Your task to perform on an android device: Add jbl charge 4 to the cart on newegg Image 0: 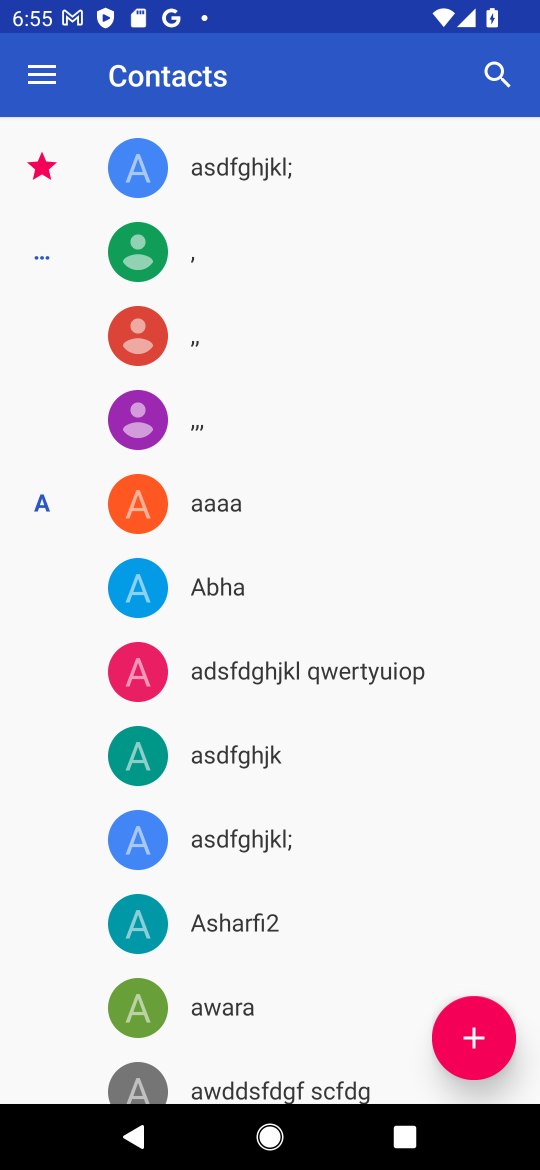
Step 0: press home button
Your task to perform on an android device: Add jbl charge 4 to the cart on newegg Image 1: 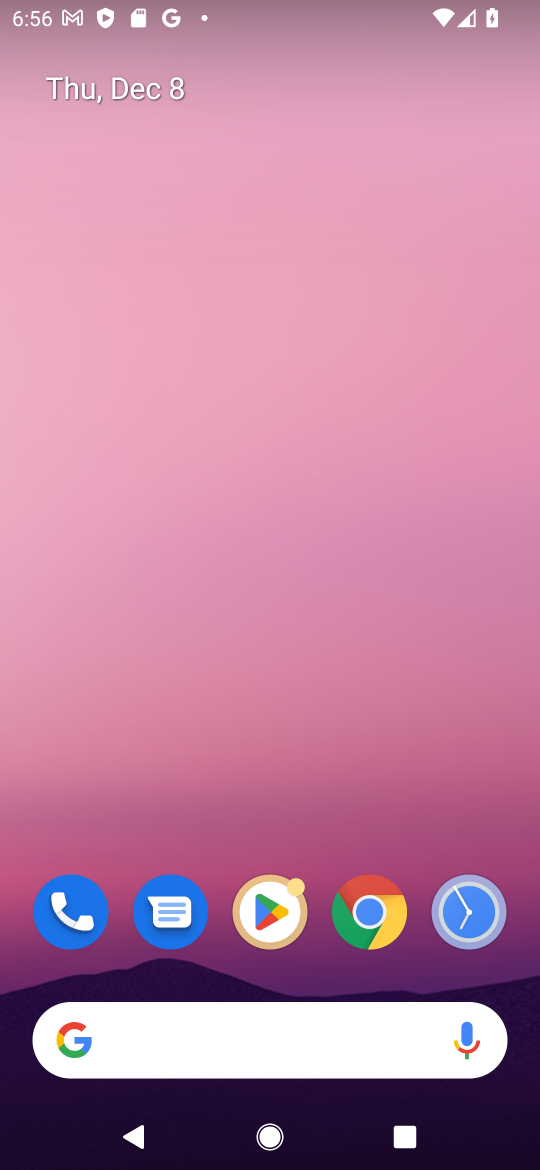
Step 1: drag from (294, 783) to (436, 228)
Your task to perform on an android device: Add jbl charge 4 to the cart on newegg Image 2: 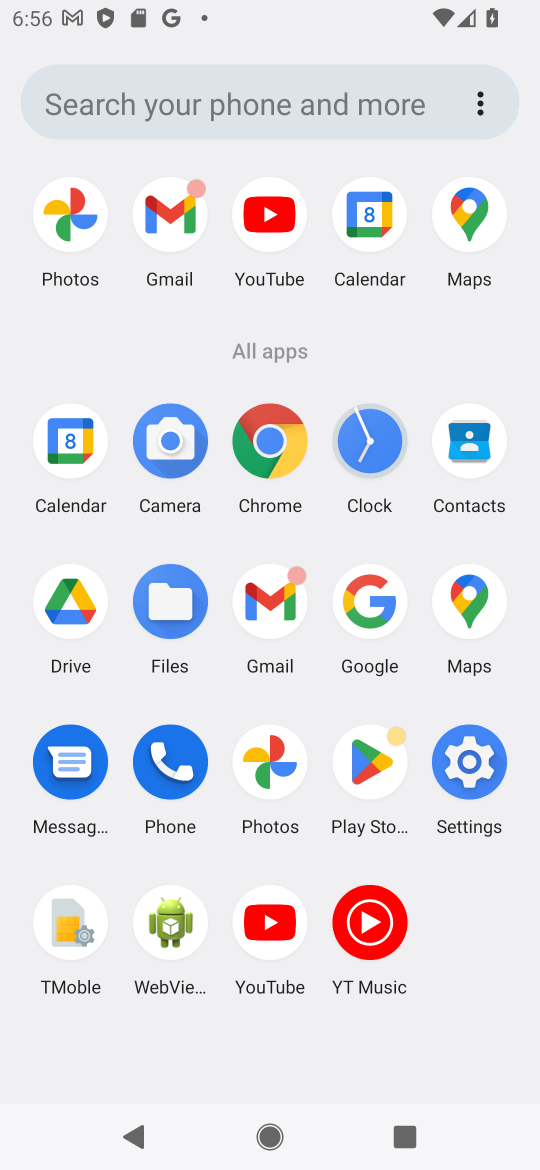
Step 2: click (369, 609)
Your task to perform on an android device: Add jbl charge 4 to the cart on newegg Image 3: 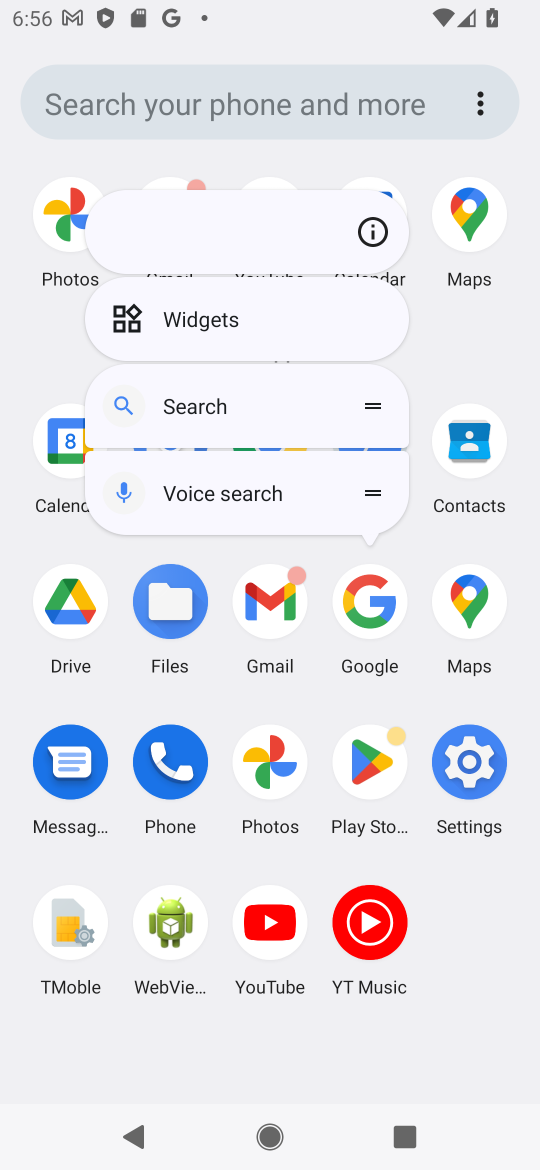
Step 3: click (373, 599)
Your task to perform on an android device: Add jbl charge 4 to the cart on newegg Image 4: 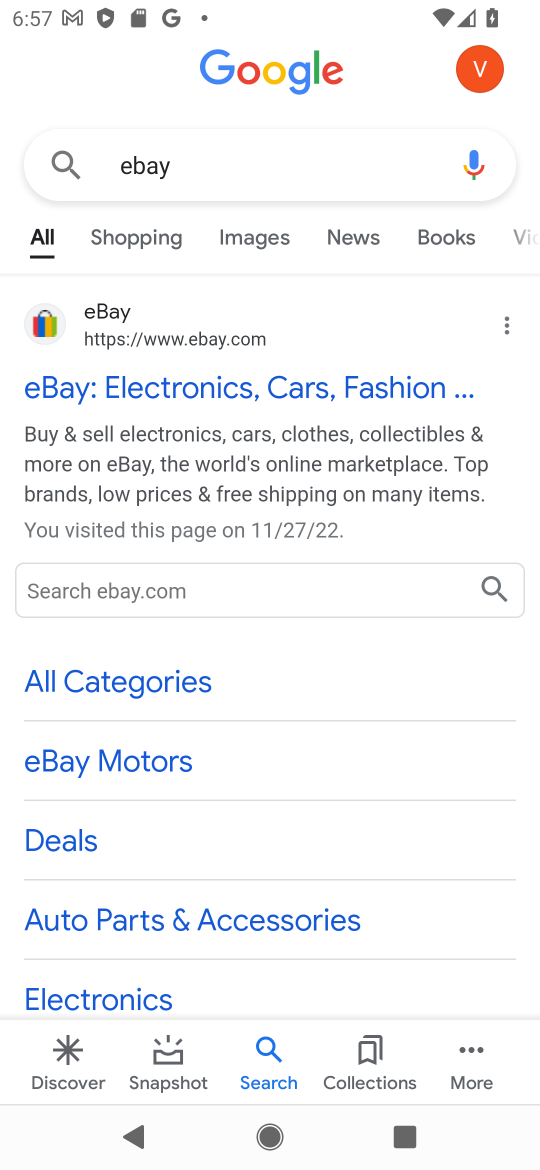
Step 4: click (164, 162)
Your task to perform on an android device: Add jbl charge 4 to the cart on newegg Image 5: 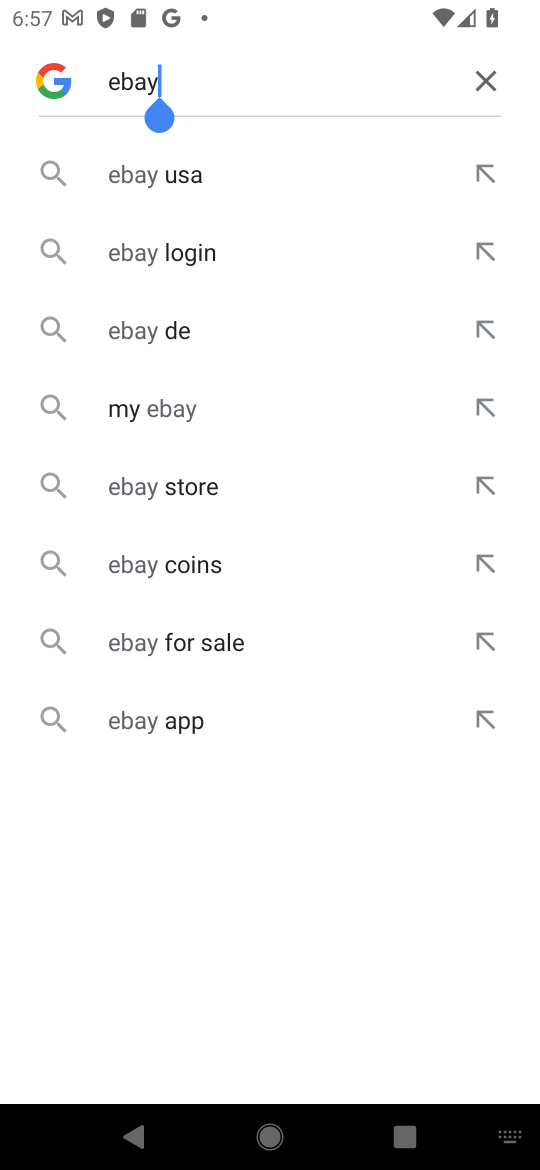
Step 5: click (487, 89)
Your task to perform on an android device: Add jbl charge 4 to the cart on newegg Image 6: 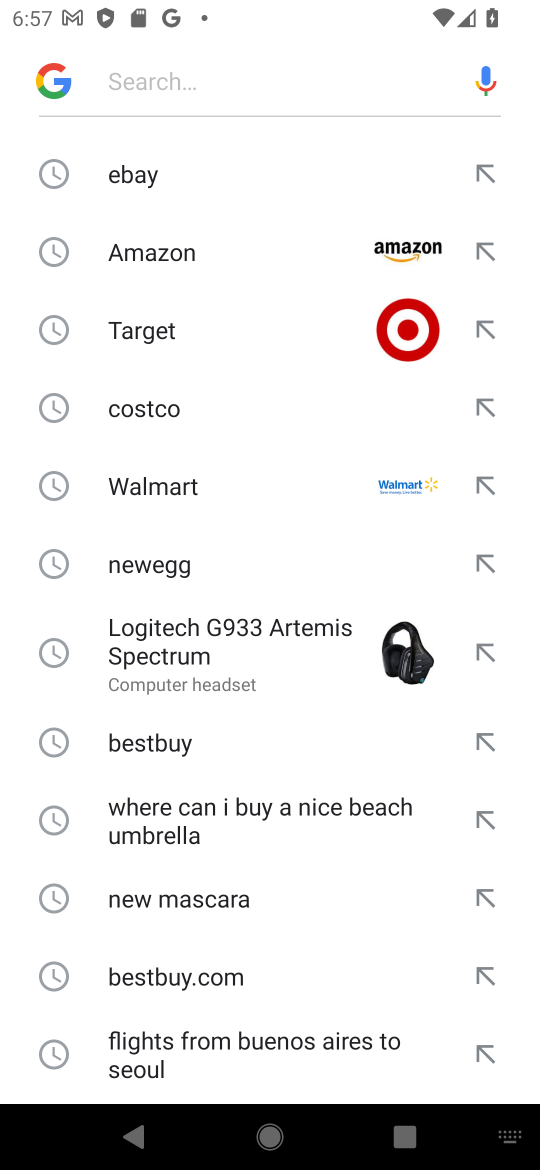
Step 6: click (150, 568)
Your task to perform on an android device: Add jbl charge 4 to the cart on newegg Image 7: 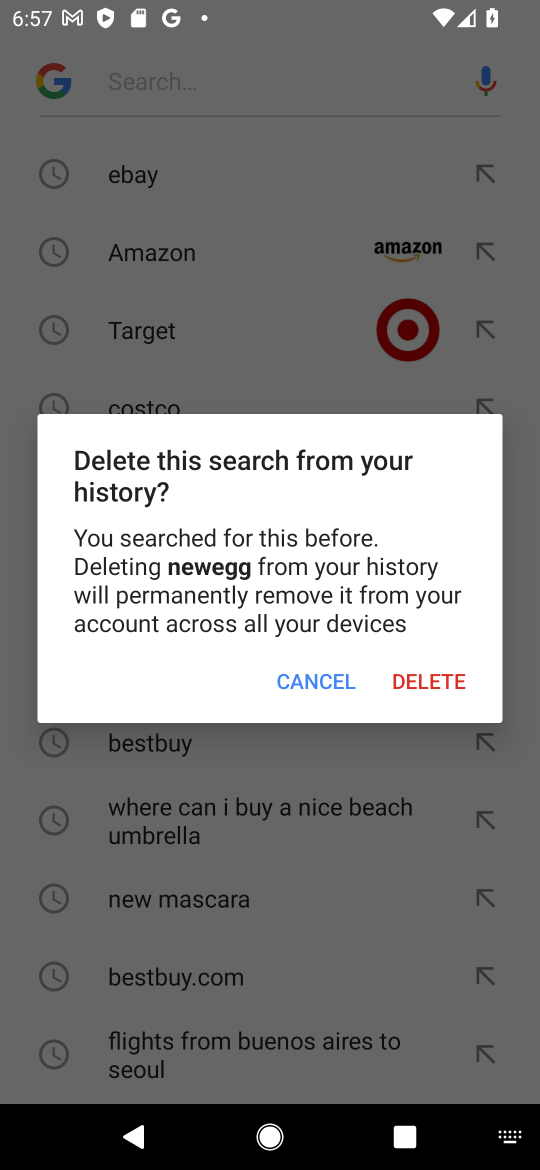
Step 7: click (296, 674)
Your task to perform on an android device: Add jbl charge 4 to the cart on newegg Image 8: 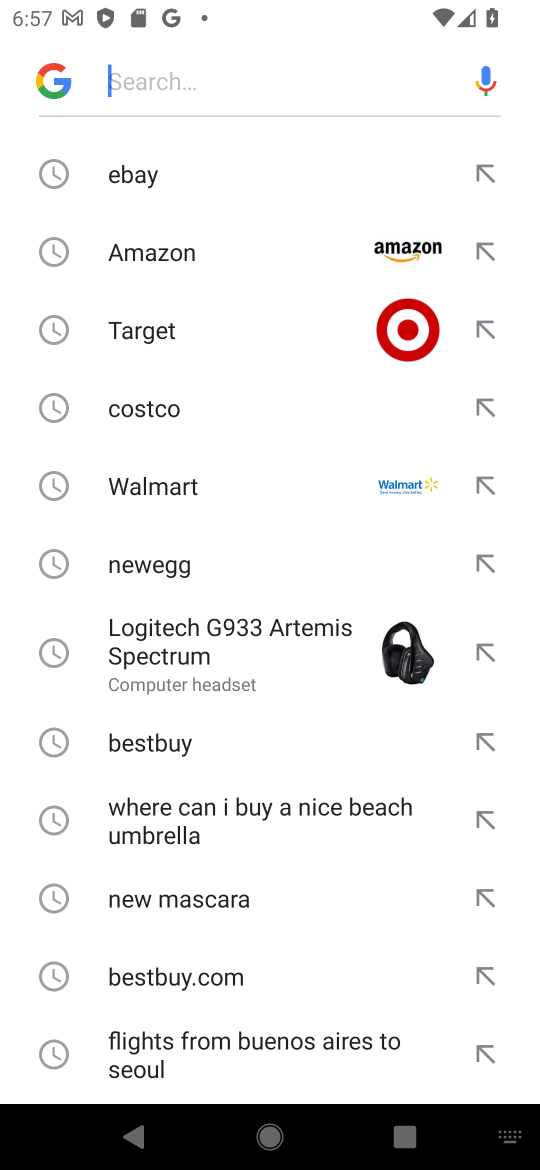
Step 8: click (494, 557)
Your task to perform on an android device: Add jbl charge 4 to the cart on newegg Image 9: 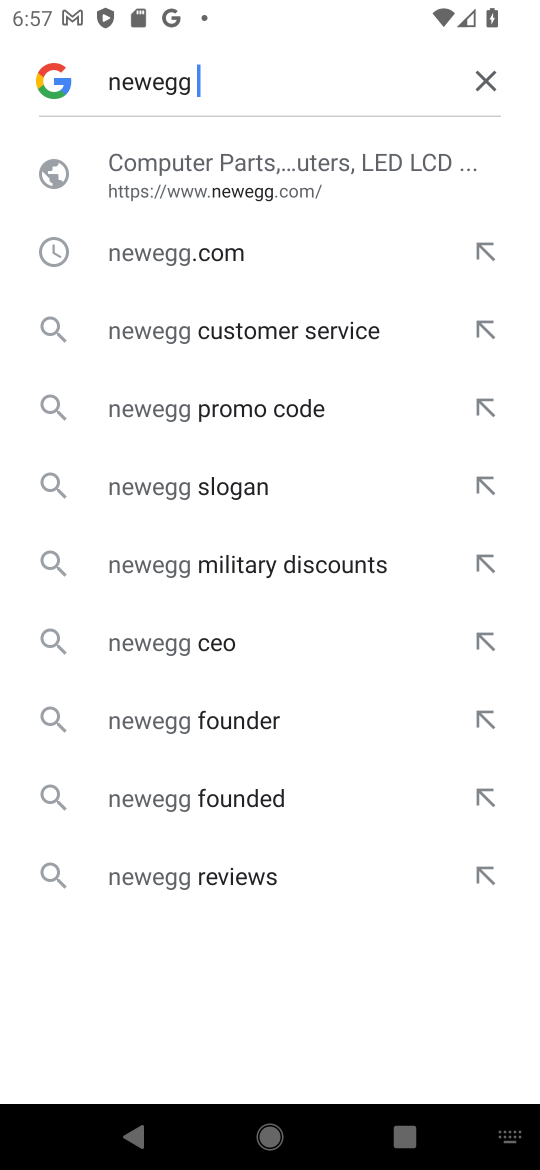
Step 9: click (231, 183)
Your task to perform on an android device: Add jbl charge 4 to the cart on newegg Image 10: 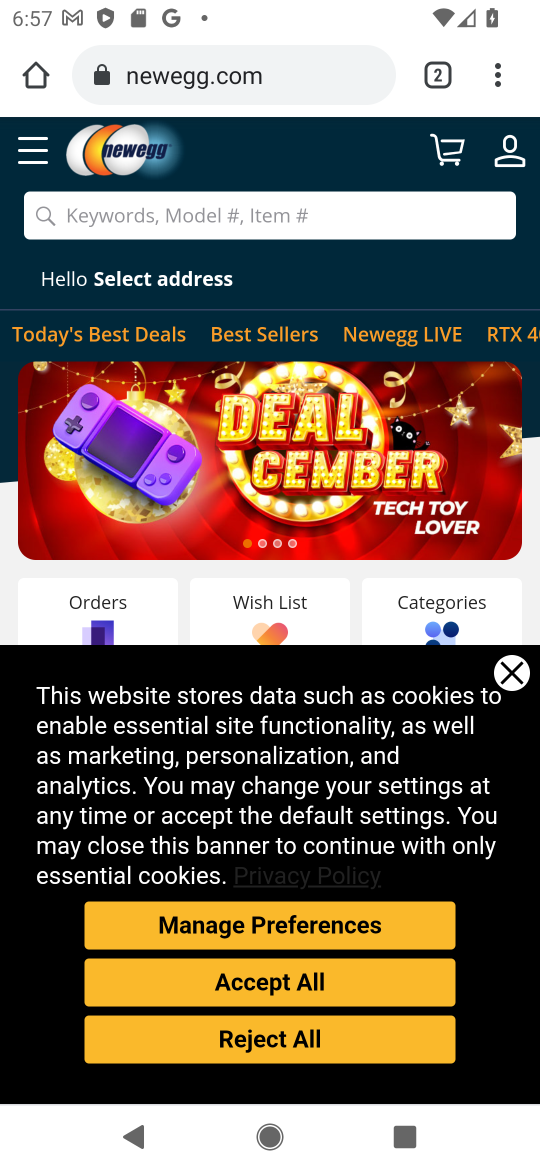
Step 10: click (228, 203)
Your task to perform on an android device: Add jbl charge 4 to the cart on newegg Image 11: 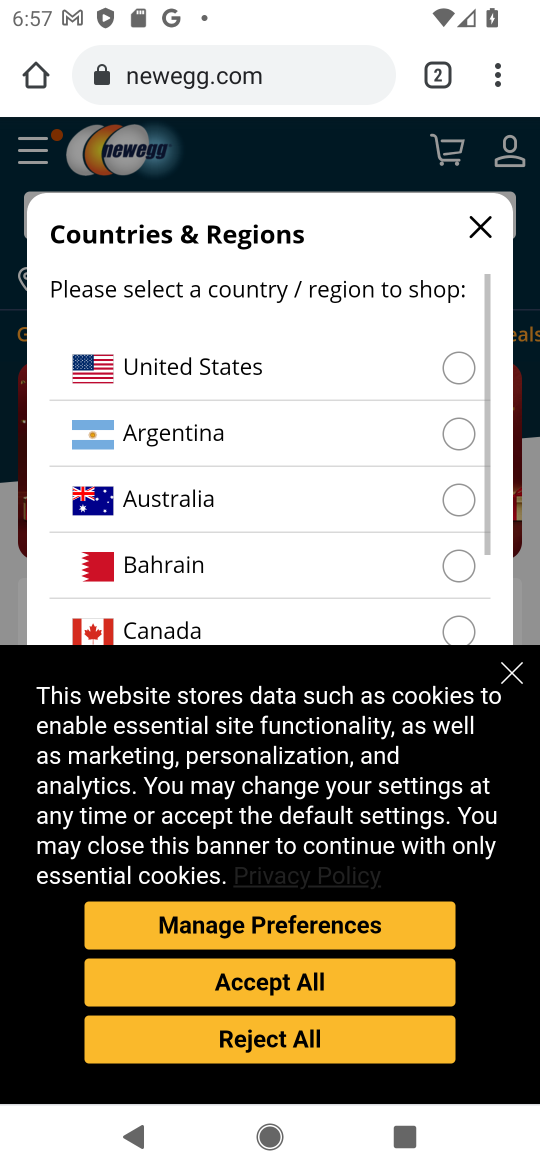
Step 11: click (487, 226)
Your task to perform on an android device: Add jbl charge 4 to the cart on newegg Image 12: 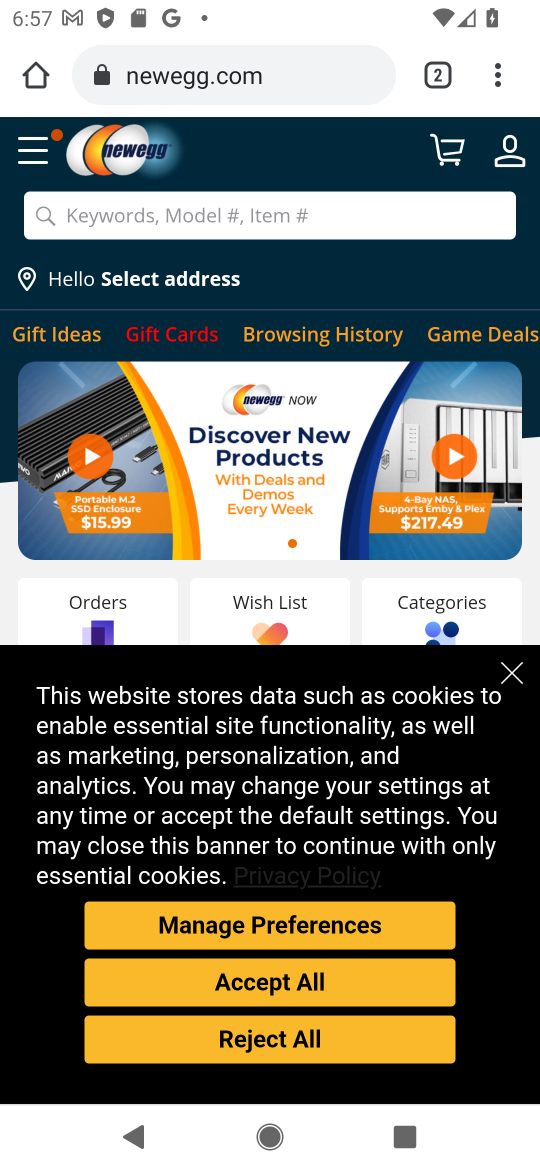
Step 12: click (438, 215)
Your task to perform on an android device: Add jbl charge 4 to the cart on newegg Image 13: 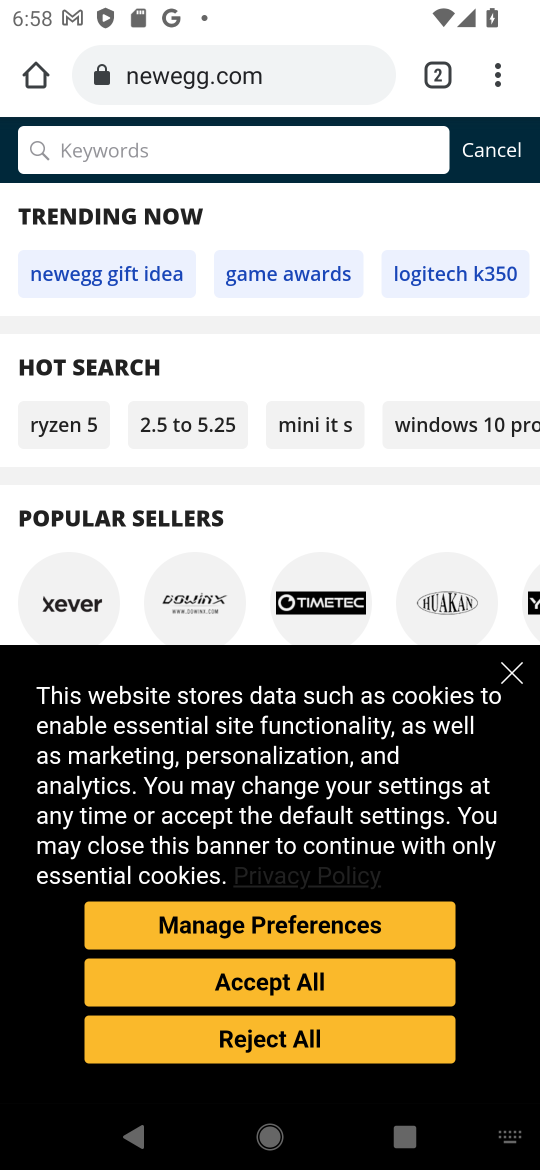
Step 13: type "jbl charge 4"
Your task to perform on an android device: Add jbl charge 4 to the cart on newegg Image 14: 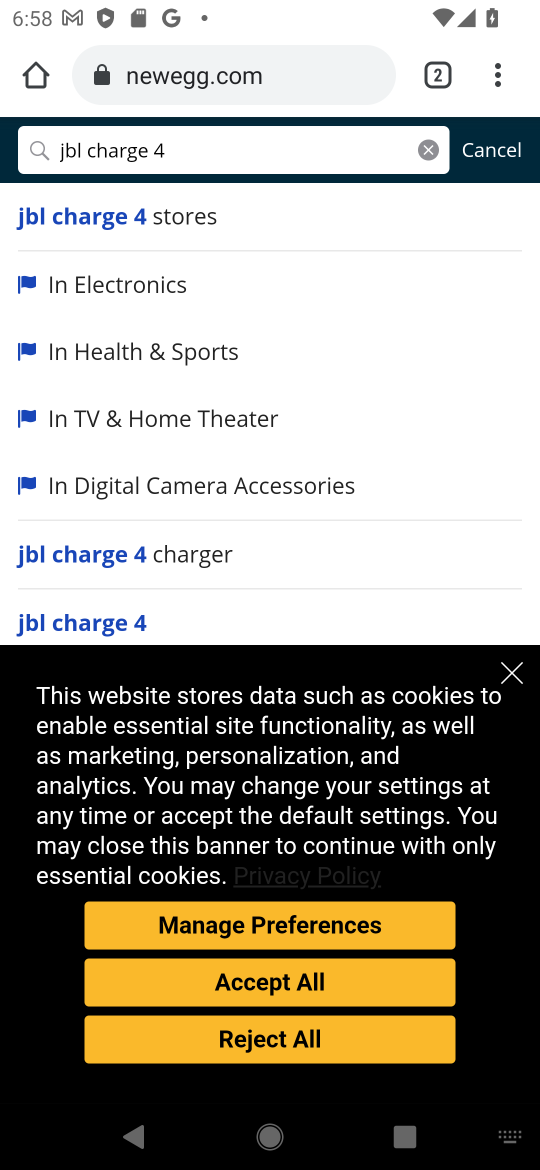
Step 14: click (114, 208)
Your task to perform on an android device: Add jbl charge 4 to the cart on newegg Image 15: 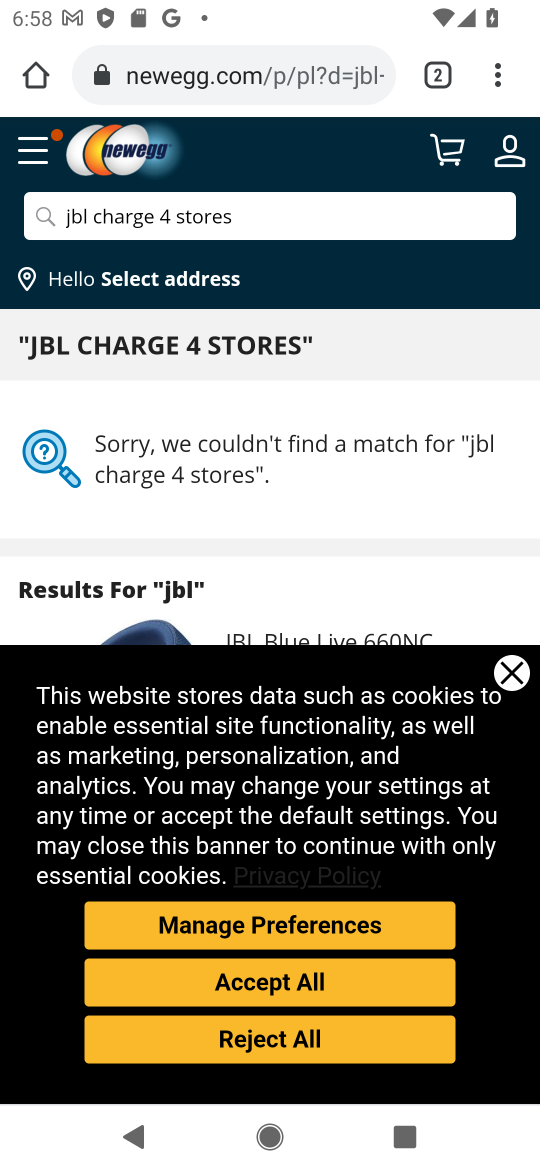
Step 15: click (503, 679)
Your task to perform on an android device: Add jbl charge 4 to the cart on newegg Image 16: 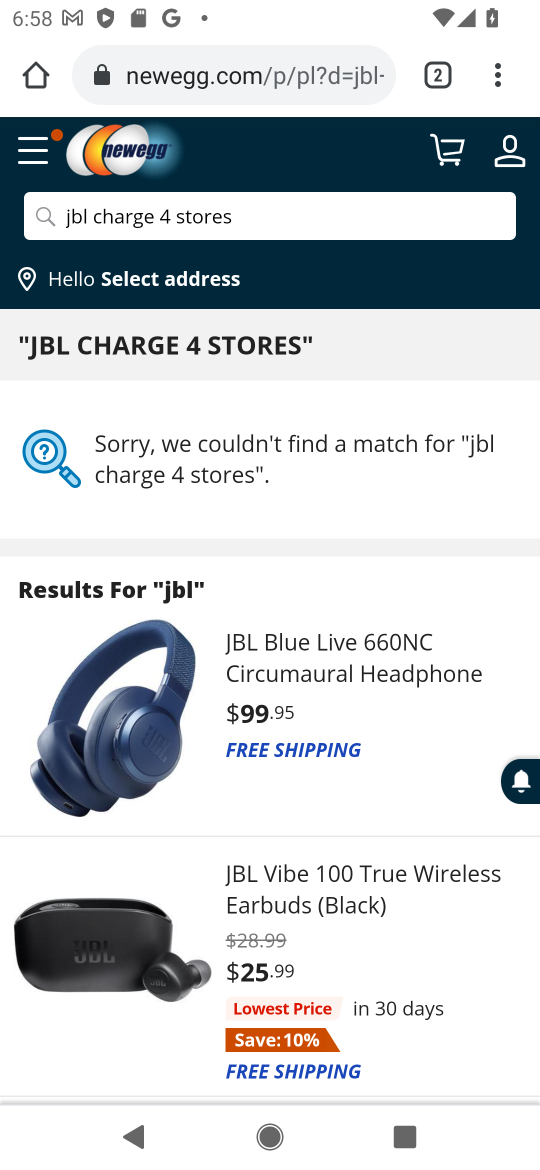
Step 16: click (326, 671)
Your task to perform on an android device: Add jbl charge 4 to the cart on newegg Image 17: 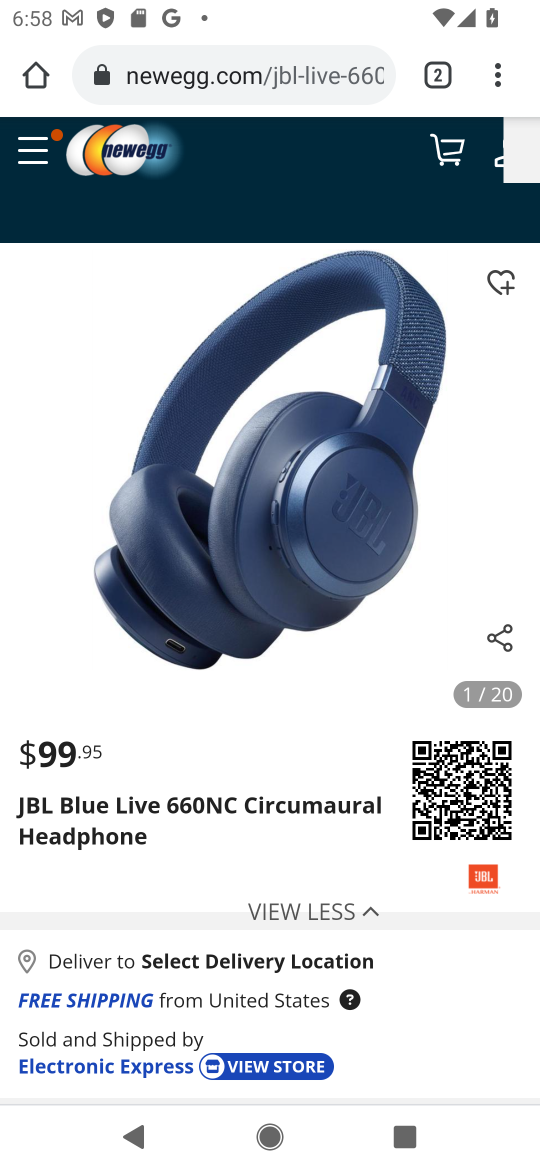
Step 17: click (257, 636)
Your task to perform on an android device: Add jbl charge 4 to the cart on newegg Image 18: 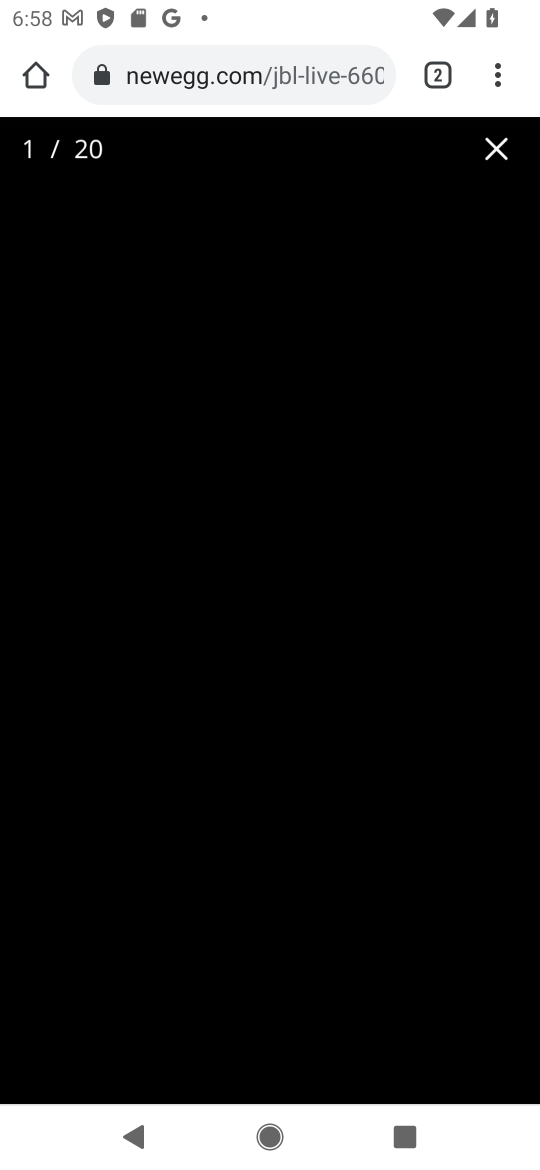
Step 18: drag from (206, 883) to (249, 366)
Your task to perform on an android device: Add jbl charge 4 to the cart on newegg Image 19: 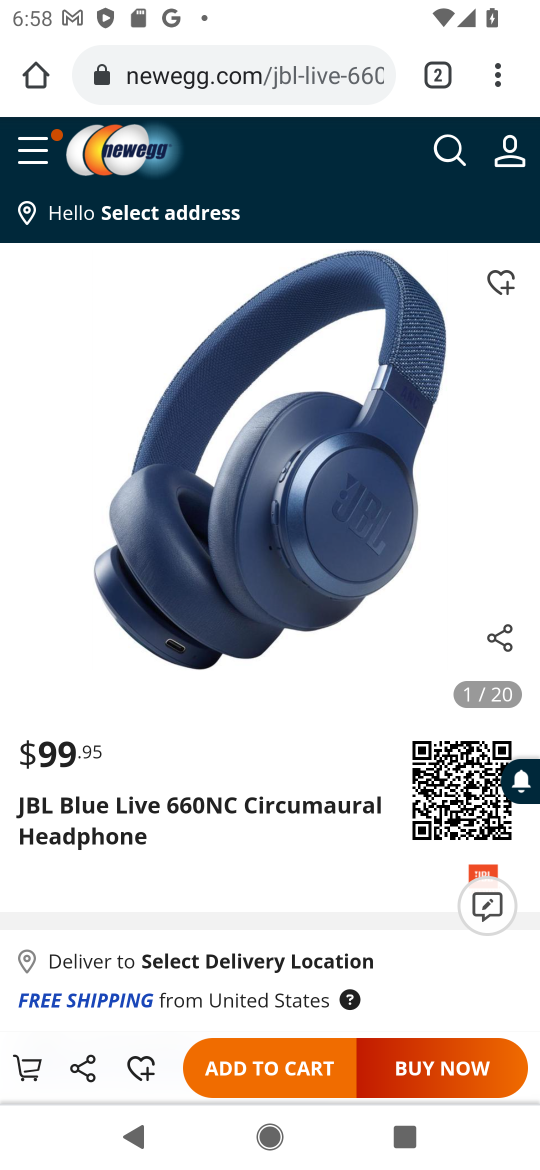
Step 19: click (263, 1079)
Your task to perform on an android device: Add jbl charge 4 to the cart on newegg Image 20: 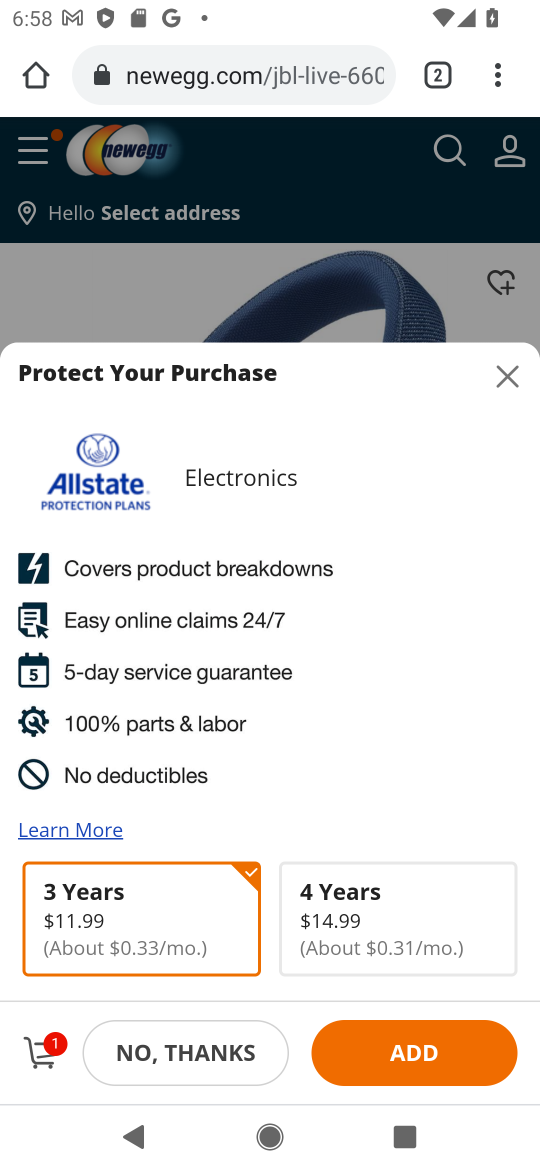
Step 20: task complete